Your task to perform on an android device: Check the news Image 0: 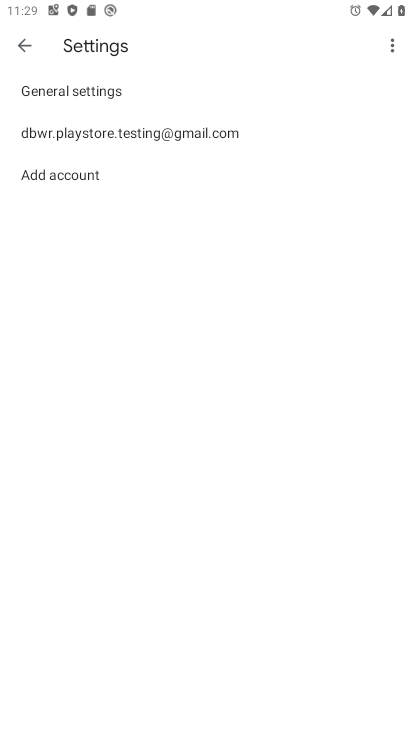
Step 0: press home button
Your task to perform on an android device: Check the news Image 1: 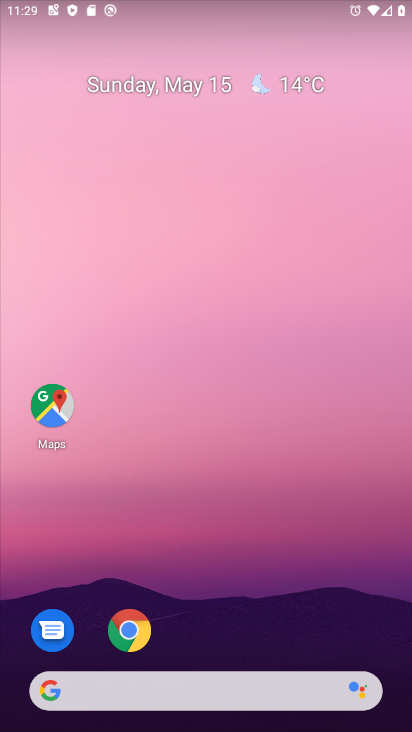
Step 1: task complete